Your task to perform on an android device: Open Google Chrome Image 0: 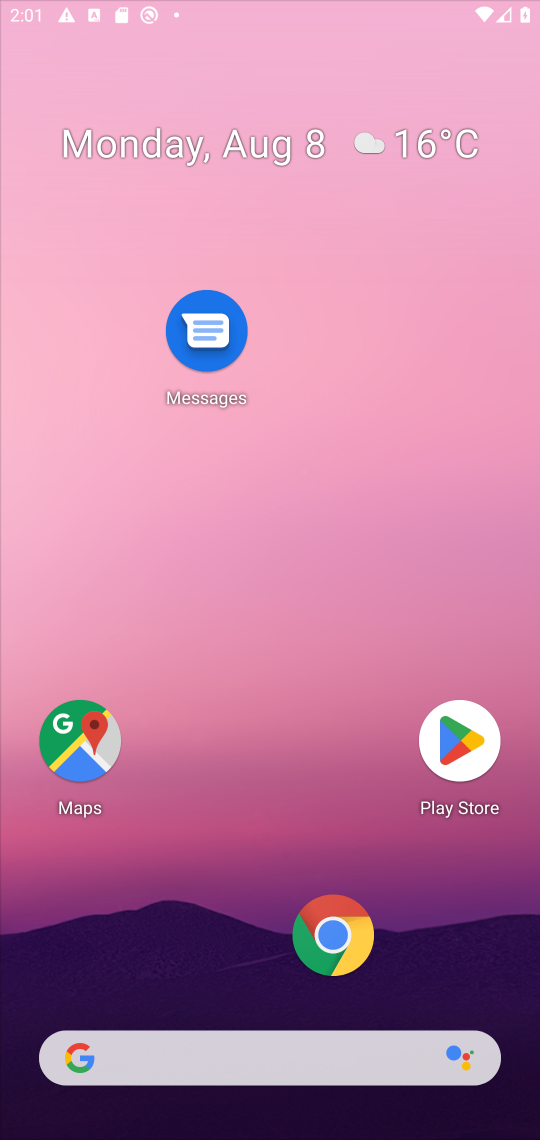
Step 0: press home button
Your task to perform on an android device: Open Google Chrome Image 1: 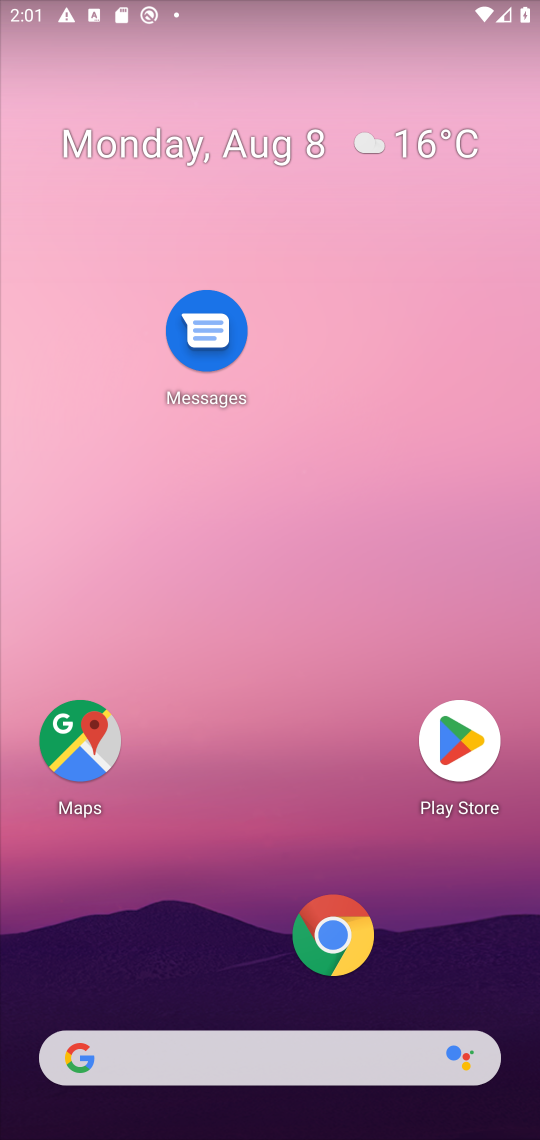
Step 1: drag from (341, 1065) to (306, 573)
Your task to perform on an android device: Open Google Chrome Image 2: 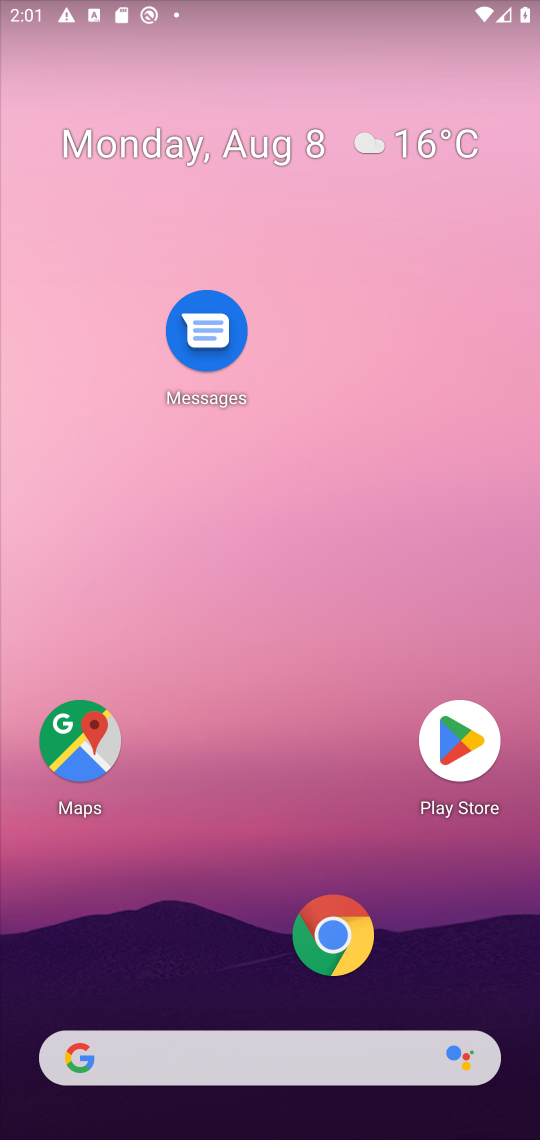
Step 2: drag from (259, 1034) to (162, 591)
Your task to perform on an android device: Open Google Chrome Image 3: 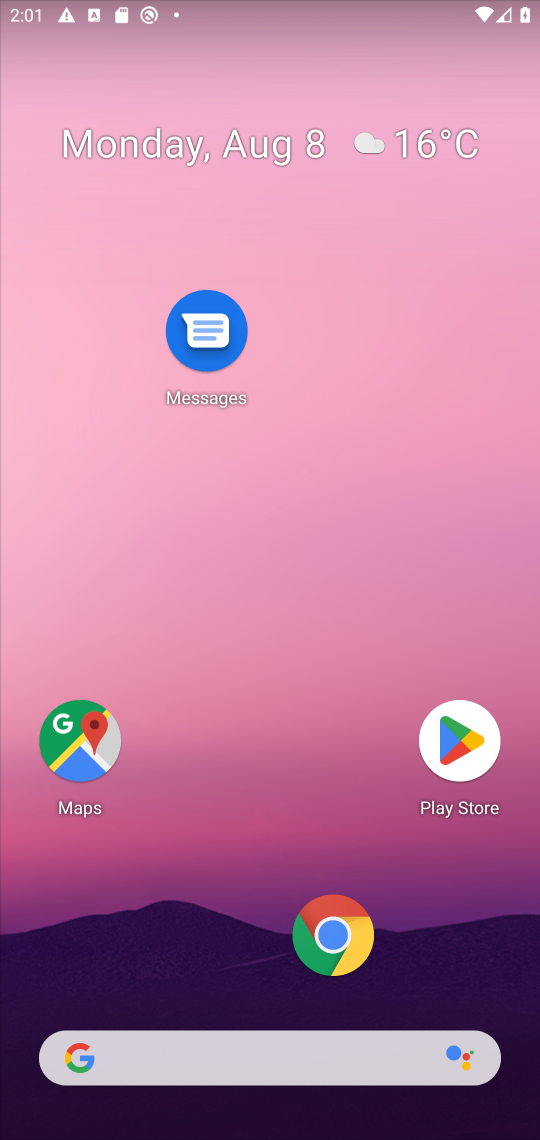
Step 3: drag from (316, 1039) to (9, 111)
Your task to perform on an android device: Open Google Chrome Image 4: 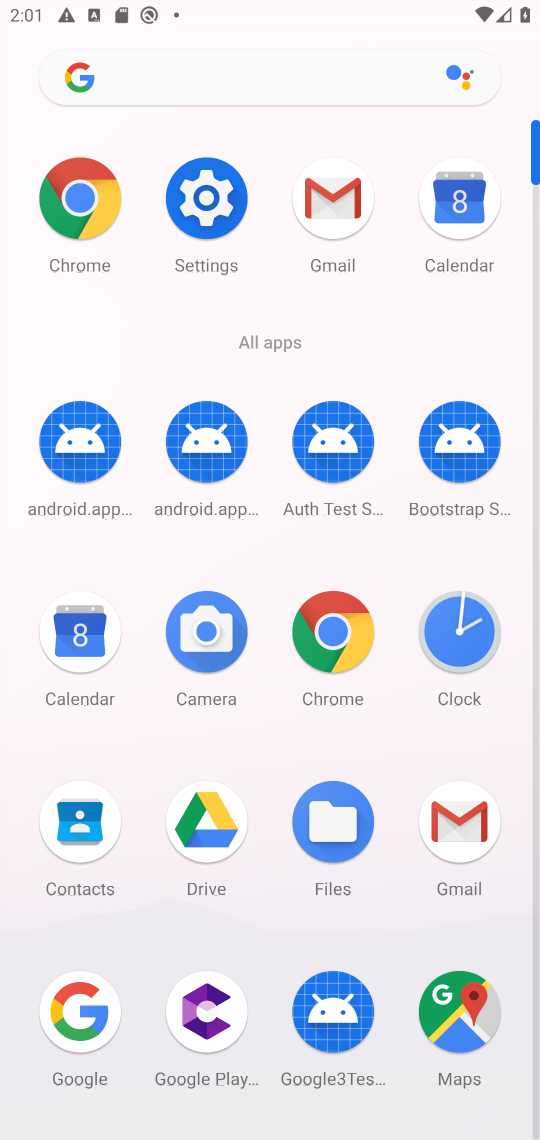
Step 4: click (352, 651)
Your task to perform on an android device: Open Google Chrome Image 5: 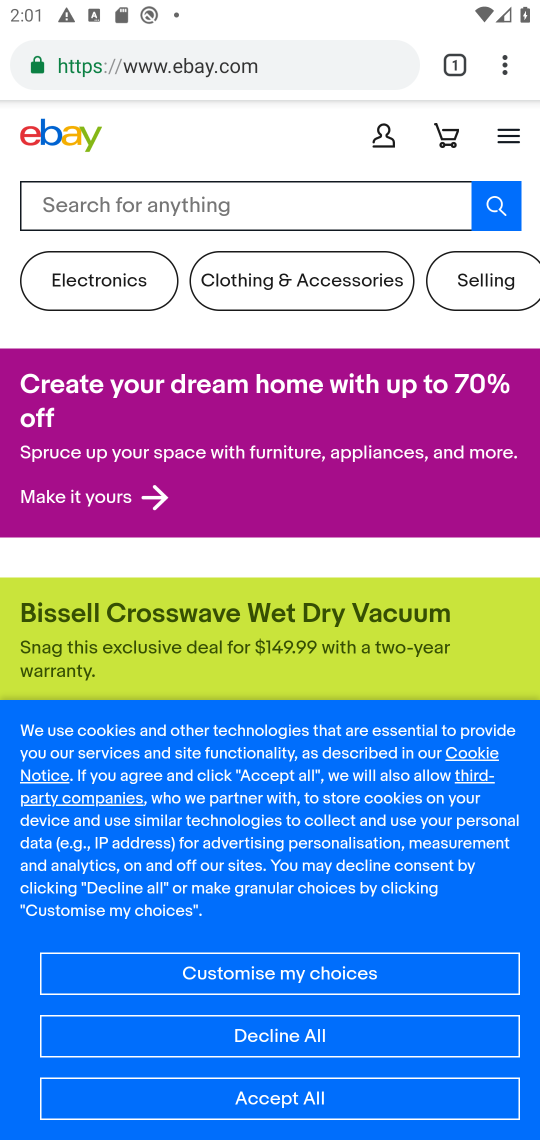
Step 5: task complete